Your task to perform on an android device: check android version Image 0: 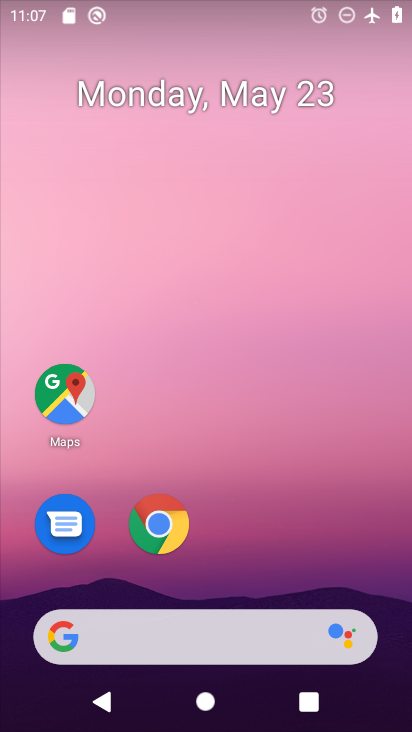
Step 0: drag from (210, 573) to (210, 242)
Your task to perform on an android device: check android version Image 1: 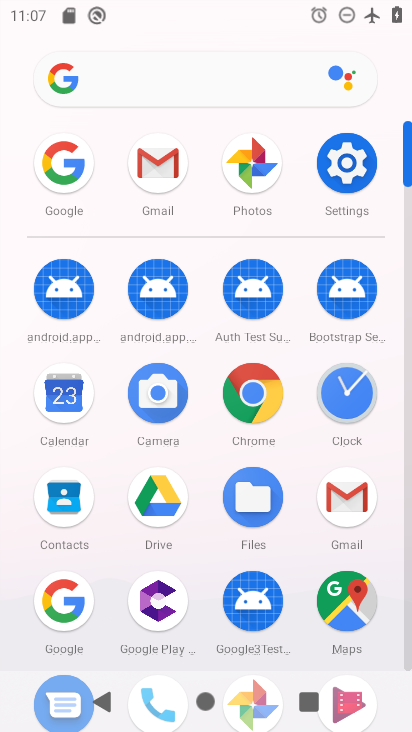
Step 1: click (328, 175)
Your task to perform on an android device: check android version Image 2: 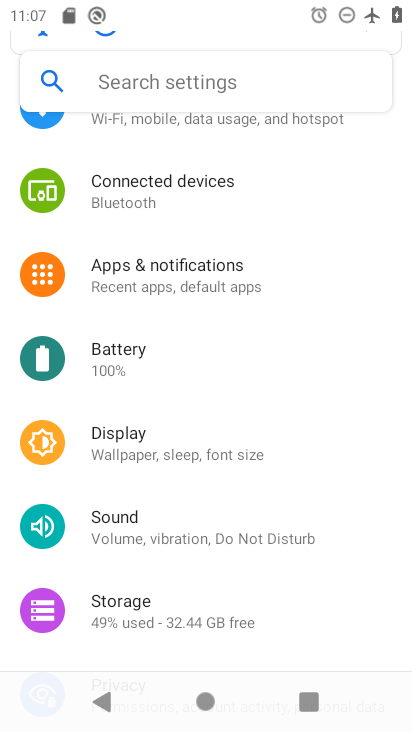
Step 2: drag from (231, 575) to (224, 218)
Your task to perform on an android device: check android version Image 3: 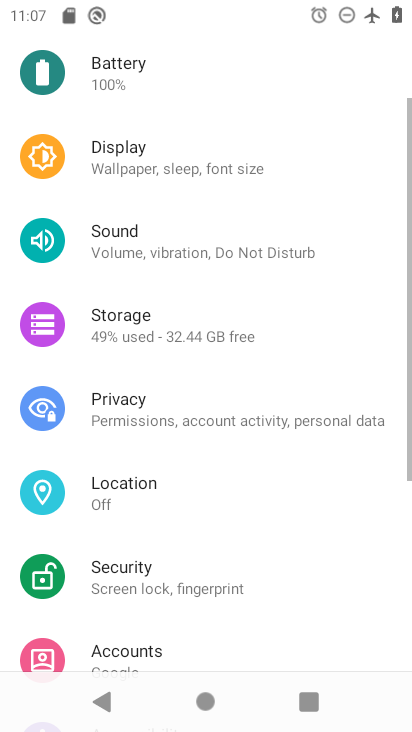
Step 3: drag from (225, 562) to (232, 319)
Your task to perform on an android device: check android version Image 4: 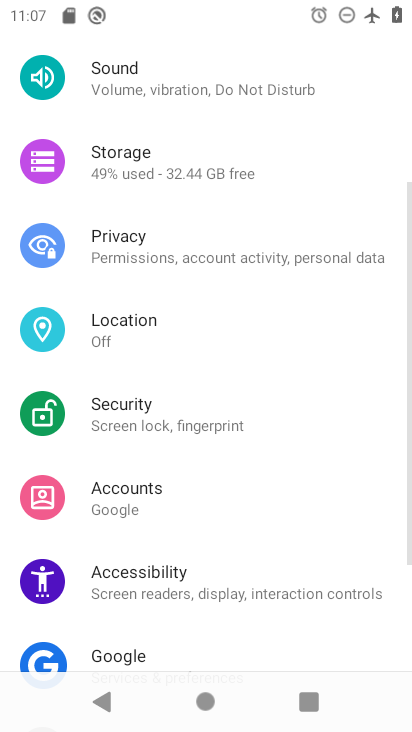
Step 4: drag from (247, 542) to (272, 254)
Your task to perform on an android device: check android version Image 5: 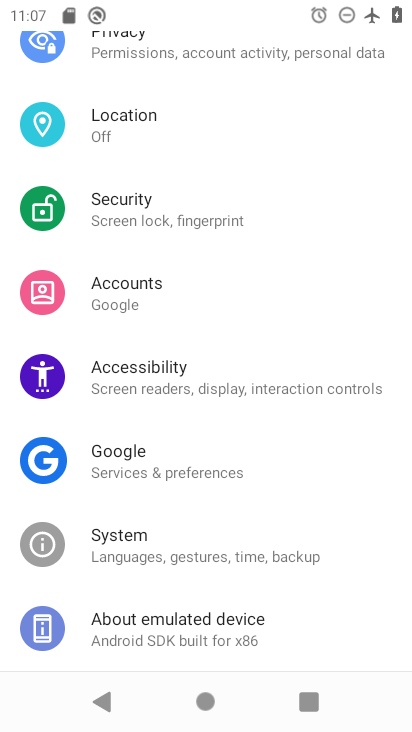
Step 5: drag from (267, 503) to (292, 283)
Your task to perform on an android device: check android version Image 6: 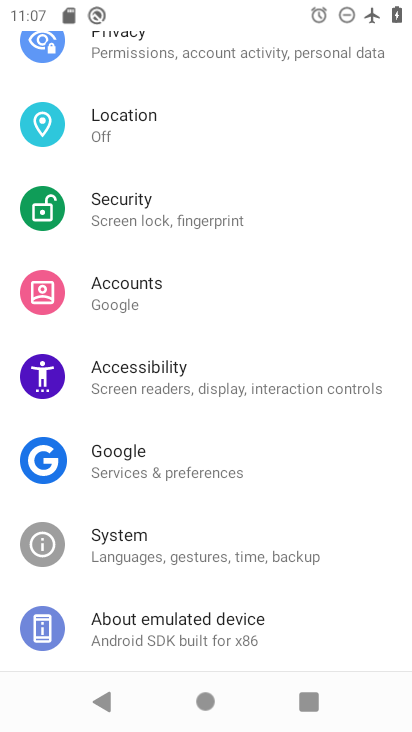
Step 6: click (242, 609)
Your task to perform on an android device: check android version Image 7: 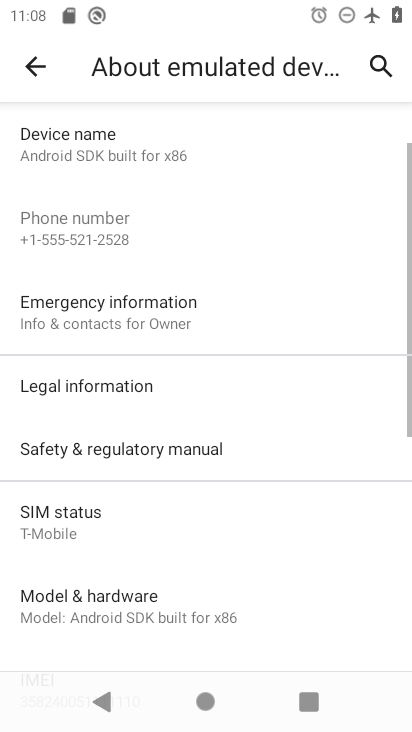
Step 7: drag from (163, 239) to (188, 501)
Your task to perform on an android device: check android version Image 8: 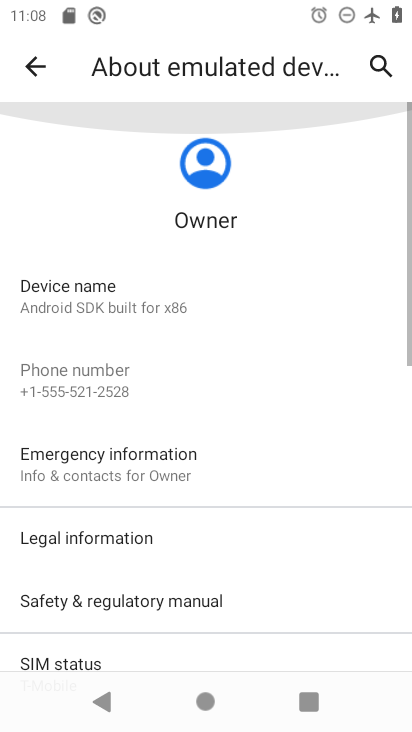
Step 8: drag from (188, 501) to (222, 272)
Your task to perform on an android device: check android version Image 9: 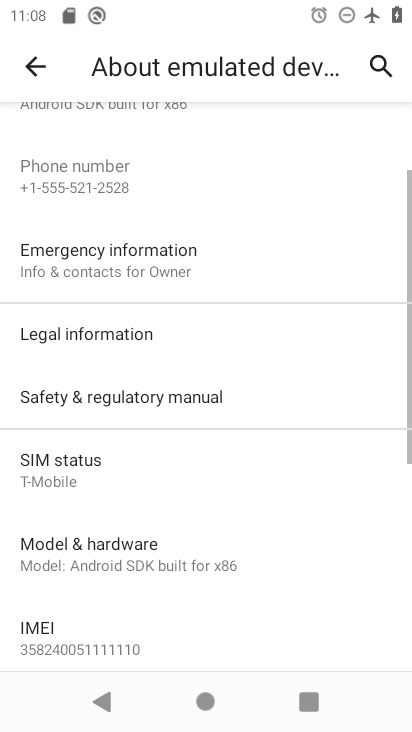
Step 9: drag from (147, 598) to (156, 312)
Your task to perform on an android device: check android version Image 10: 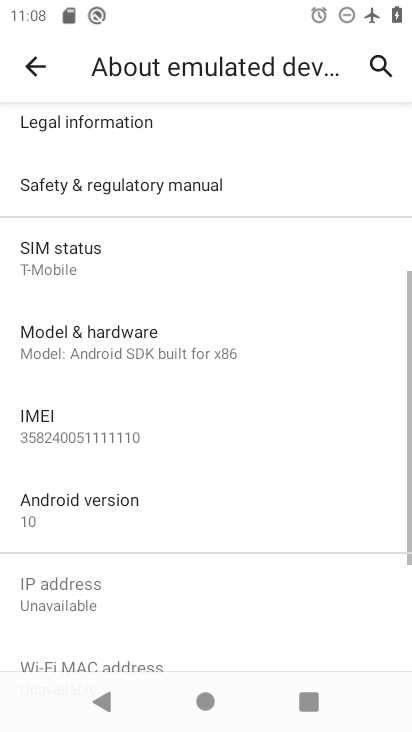
Step 10: drag from (204, 536) to (227, 331)
Your task to perform on an android device: check android version Image 11: 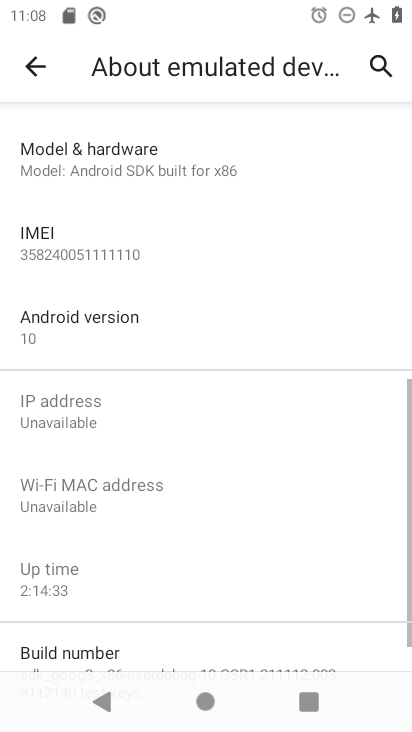
Step 11: click (192, 315)
Your task to perform on an android device: check android version Image 12: 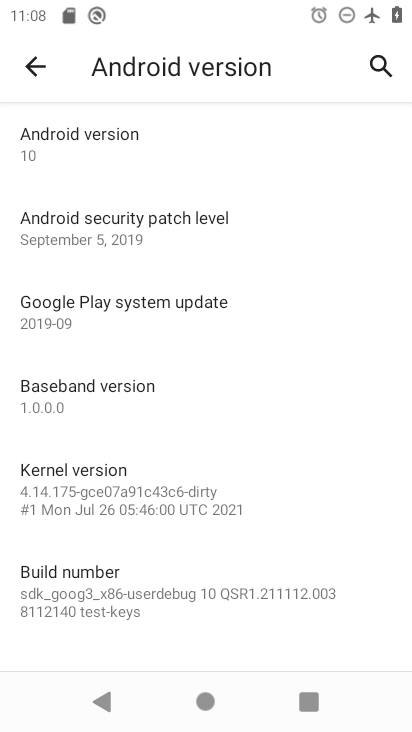
Step 12: click (91, 171)
Your task to perform on an android device: check android version Image 13: 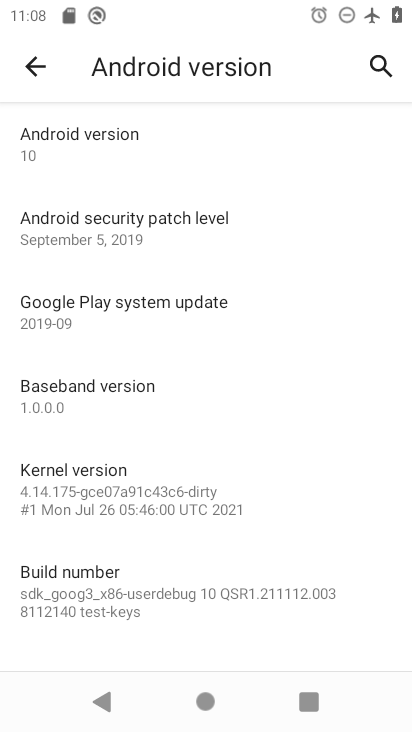
Step 13: click (132, 141)
Your task to perform on an android device: check android version Image 14: 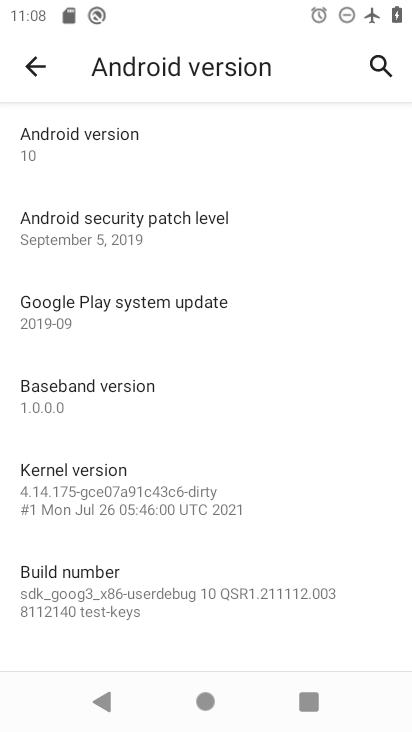
Step 14: task complete